Your task to perform on an android device: Go to privacy settings Image 0: 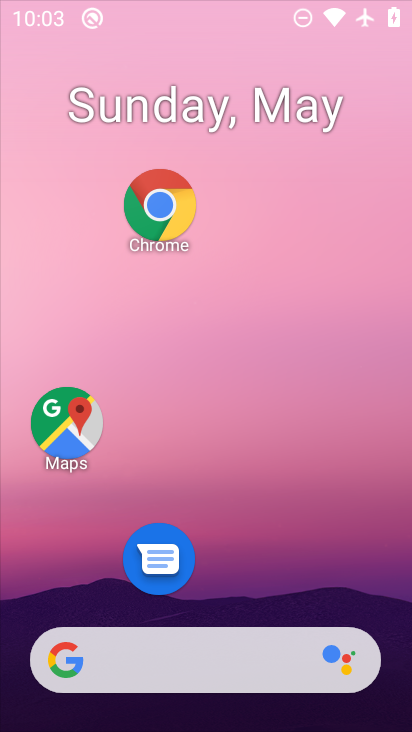
Step 0: press home button
Your task to perform on an android device: Go to privacy settings Image 1: 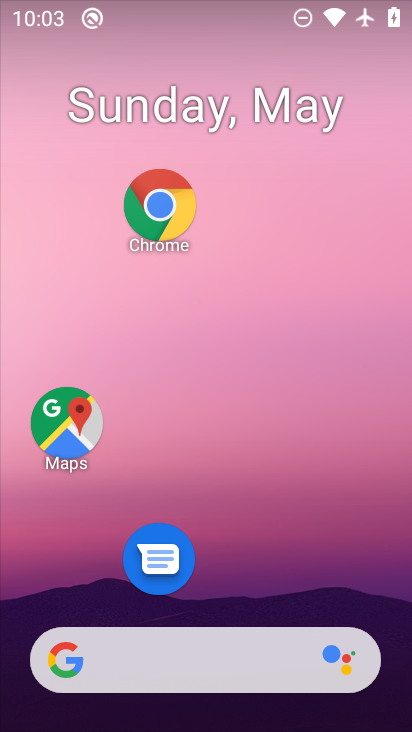
Step 1: drag from (301, 602) to (318, 109)
Your task to perform on an android device: Go to privacy settings Image 2: 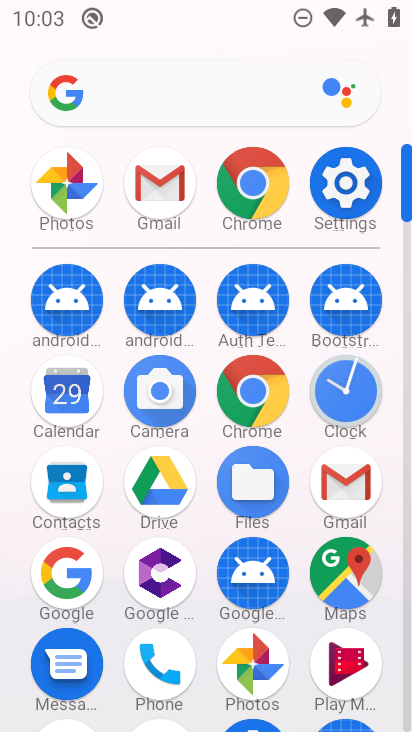
Step 2: click (351, 190)
Your task to perform on an android device: Go to privacy settings Image 3: 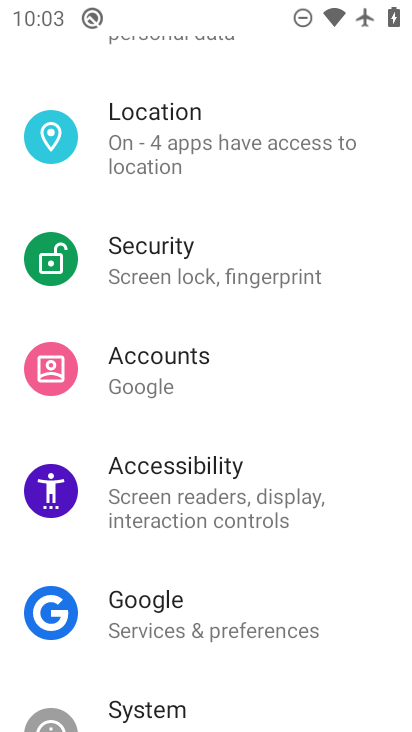
Step 3: drag from (322, 89) to (241, 682)
Your task to perform on an android device: Go to privacy settings Image 4: 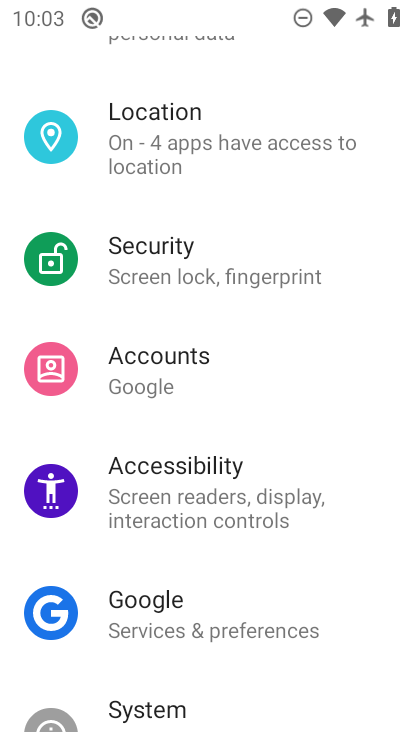
Step 4: drag from (297, 392) to (233, 720)
Your task to perform on an android device: Go to privacy settings Image 5: 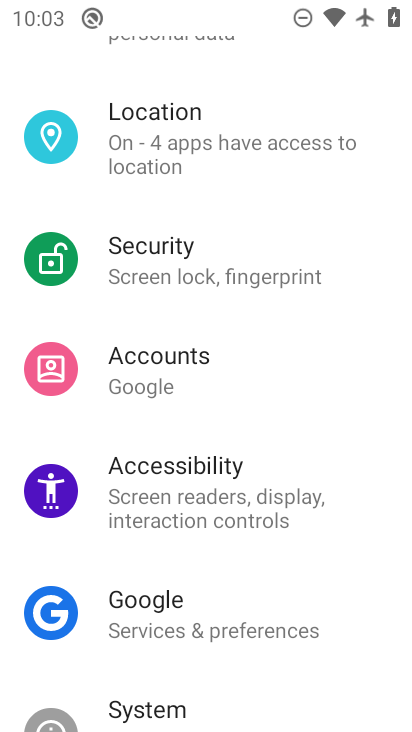
Step 5: drag from (294, 580) to (348, 42)
Your task to perform on an android device: Go to privacy settings Image 6: 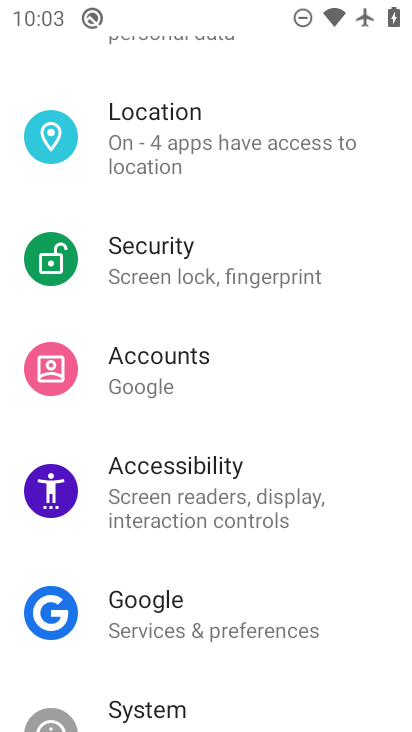
Step 6: drag from (340, 324) to (204, 723)
Your task to perform on an android device: Go to privacy settings Image 7: 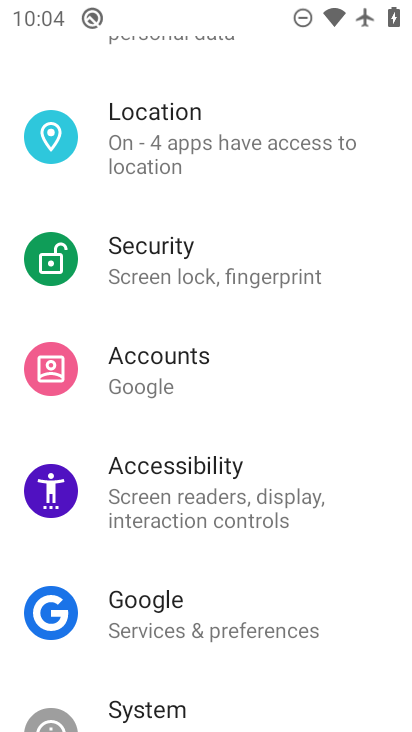
Step 7: drag from (305, 196) to (217, 729)
Your task to perform on an android device: Go to privacy settings Image 8: 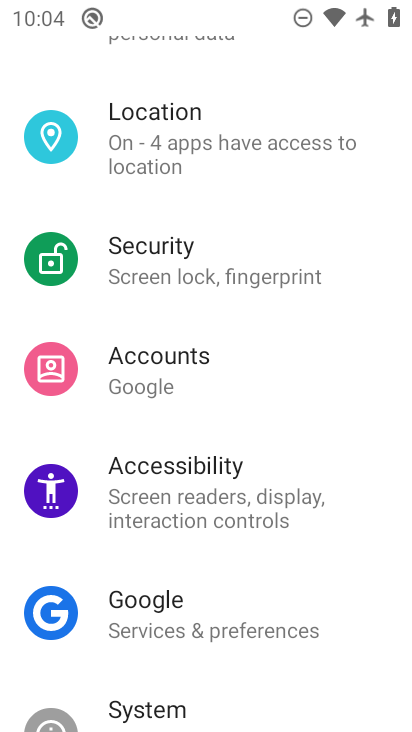
Step 8: drag from (295, 67) to (143, 727)
Your task to perform on an android device: Go to privacy settings Image 9: 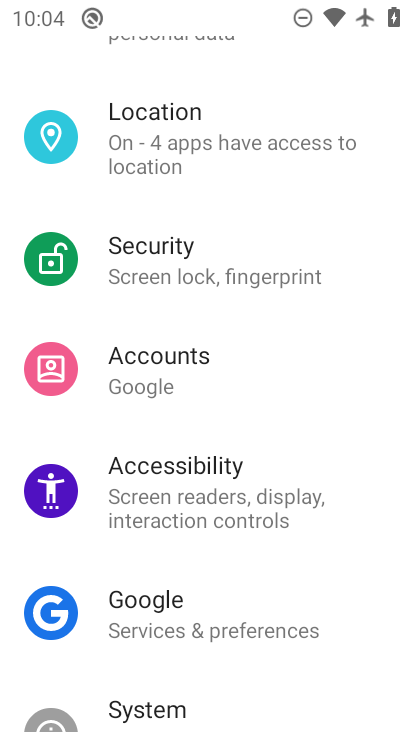
Step 9: drag from (277, 188) to (292, 694)
Your task to perform on an android device: Go to privacy settings Image 10: 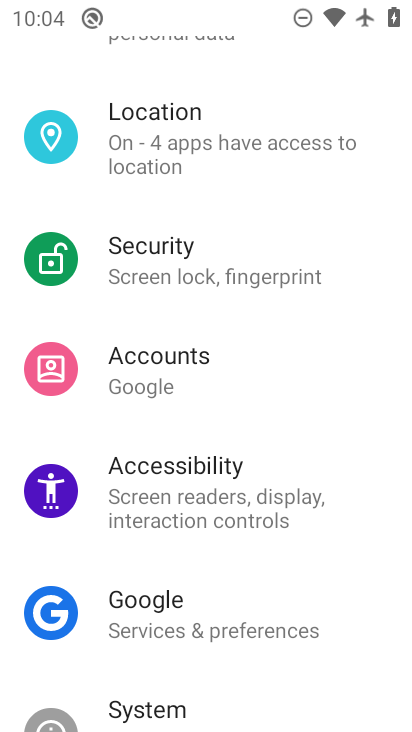
Step 10: drag from (20, 65) to (4, 686)
Your task to perform on an android device: Go to privacy settings Image 11: 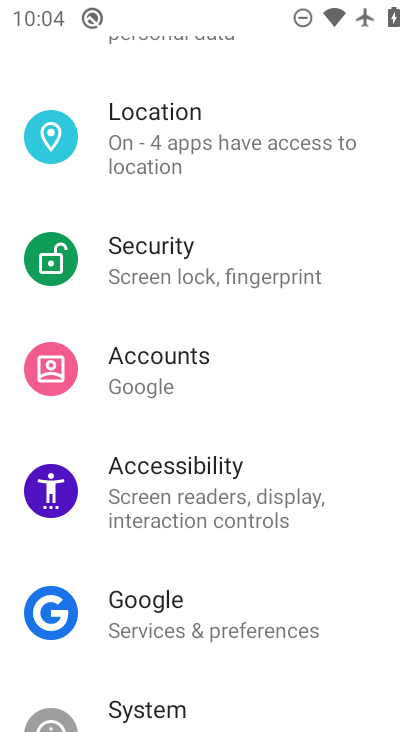
Step 11: drag from (292, 209) to (277, 560)
Your task to perform on an android device: Go to privacy settings Image 12: 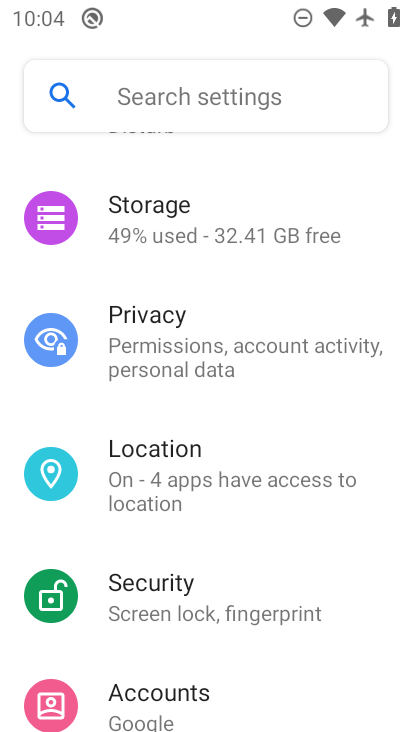
Step 12: click (136, 326)
Your task to perform on an android device: Go to privacy settings Image 13: 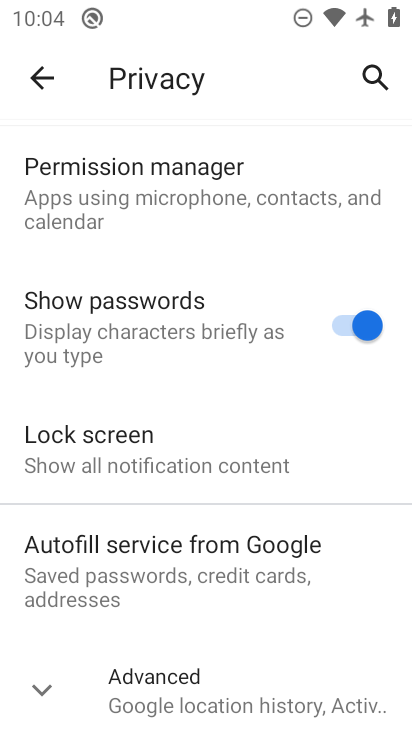
Step 13: task complete